Your task to perform on an android device: set an alarm Image 0: 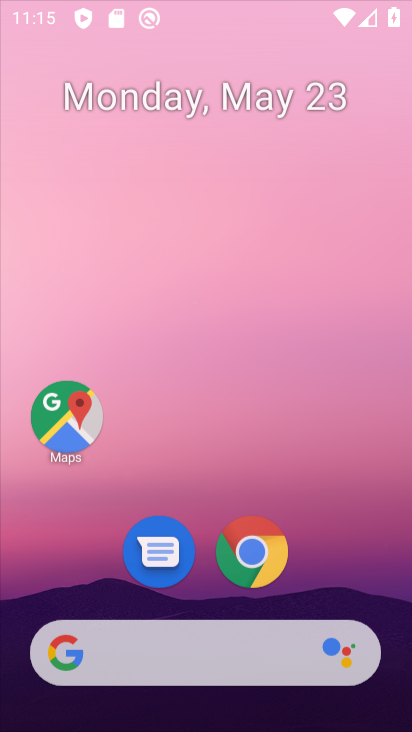
Step 0: press home button
Your task to perform on an android device: set an alarm Image 1: 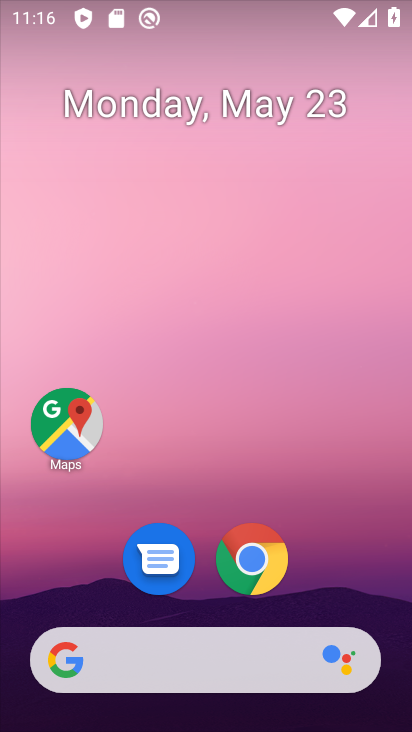
Step 1: drag from (390, 662) to (351, 192)
Your task to perform on an android device: set an alarm Image 2: 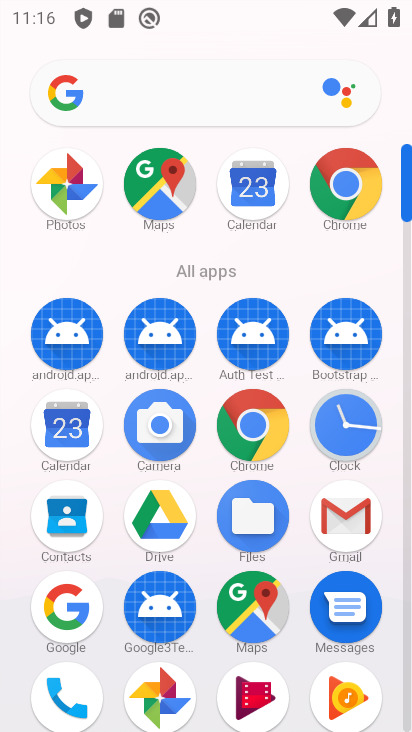
Step 2: click (332, 421)
Your task to perform on an android device: set an alarm Image 3: 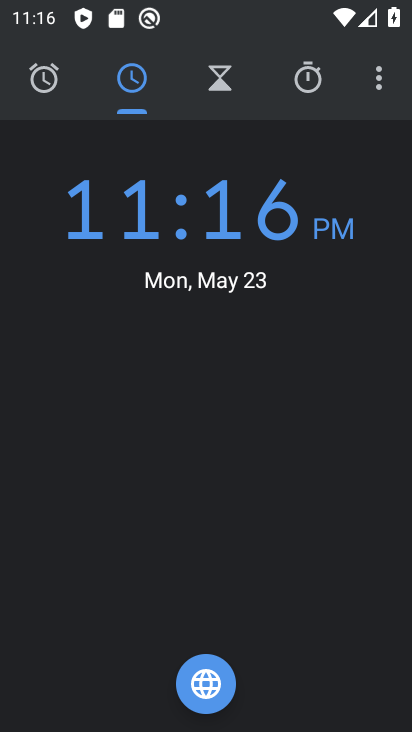
Step 3: click (45, 81)
Your task to perform on an android device: set an alarm Image 4: 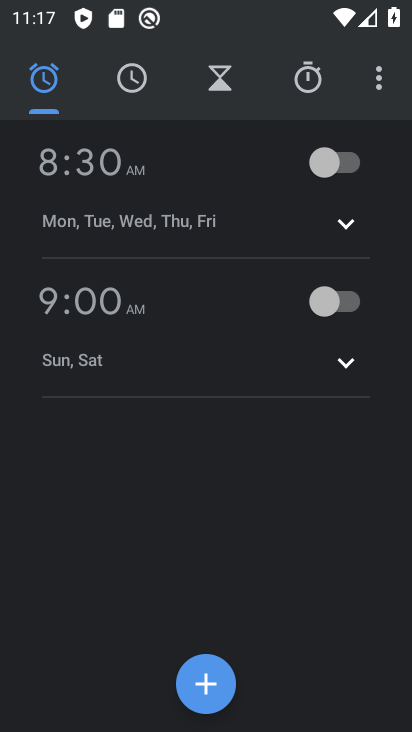
Step 4: task complete